Your task to perform on an android device: Search for a new grill on Home Depot Image 0: 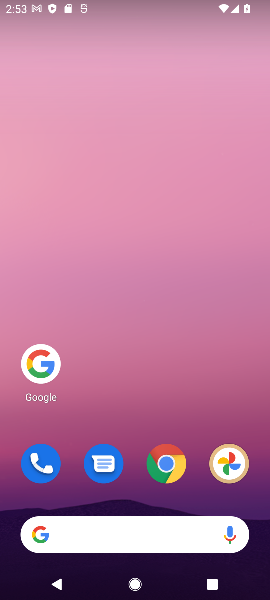
Step 0: click (29, 355)
Your task to perform on an android device: Search for a new grill on Home Depot Image 1: 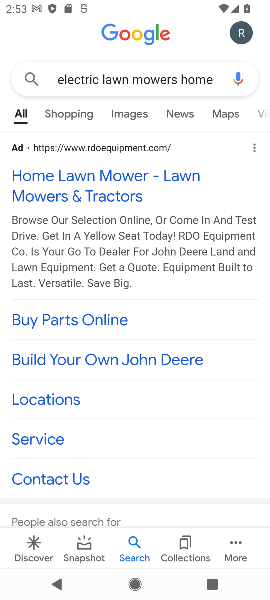
Step 1: click (159, 76)
Your task to perform on an android device: Search for a new grill on Home Depot Image 2: 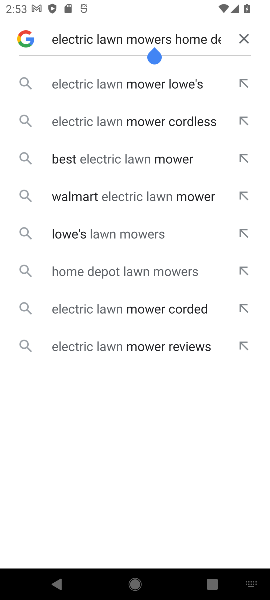
Step 2: click (249, 38)
Your task to perform on an android device: Search for a new grill on Home Depot Image 3: 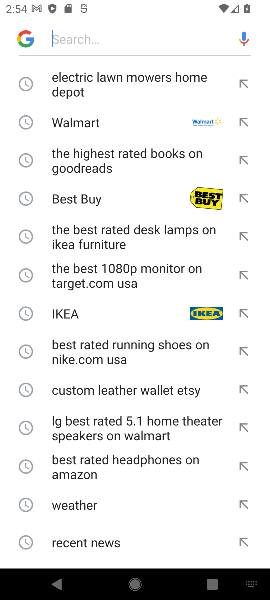
Step 3: click (151, 34)
Your task to perform on an android device: Search for a new grill on Home Depot Image 4: 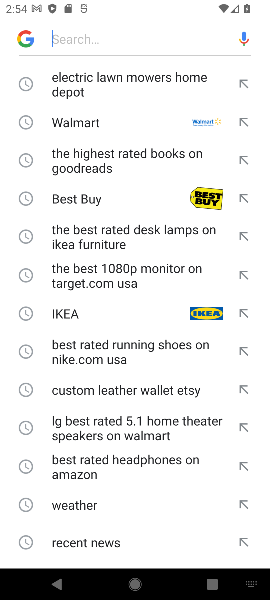
Step 4: type "new grill on Home Depot "
Your task to perform on an android device: Search for a new grill on Home Depot Image 5: 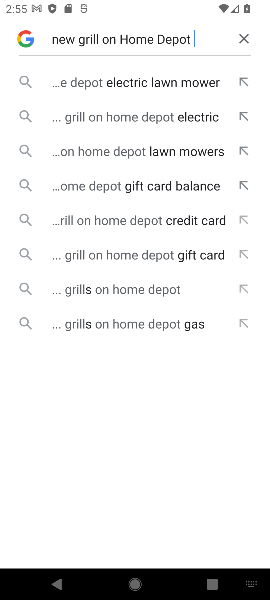
Step 5: click (116, 75)
Your task to perform on an android device: Search for a new grill on Home Depot Image 6: 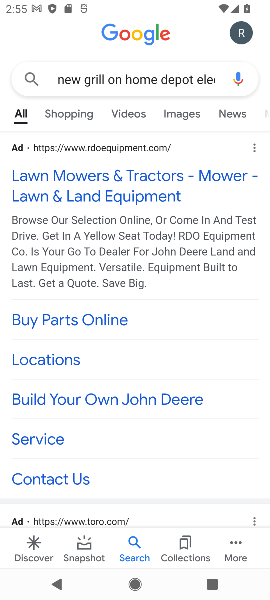
Step 6: drag from (138, 468) to (174, 266)
Your task to perform on an android device: Search for a new grill on Home Depot Image 7: 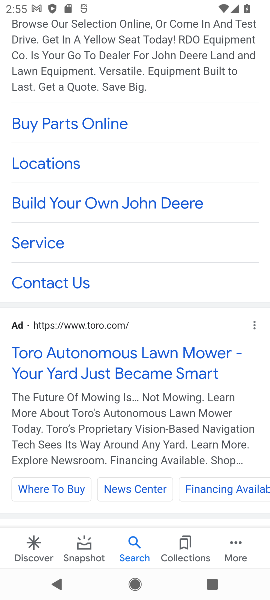
Step 7: drag from (132, 196) to (174, 464)
Your task to perform on an android device: Search for a new grill on Home Depot Image 8: 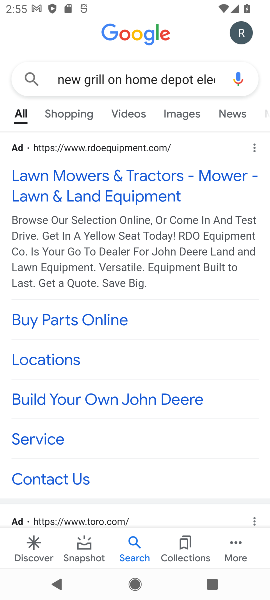
Step 8: drag from (128, 488) to (181, 178)
Your task to perform on an android device: Search for a new grill on Home Depot Image 9: 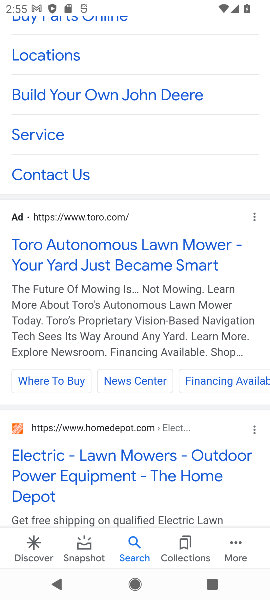
Step 9: click (99, 474)
Your task to perform on an android device: Search for a new grill on Home Depot Image 10: 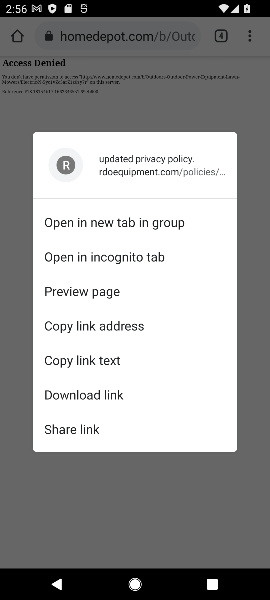
Step 10: click (76, 494)
Your task to perform on an android device: Search for a new grill on Home Depot Image 11: 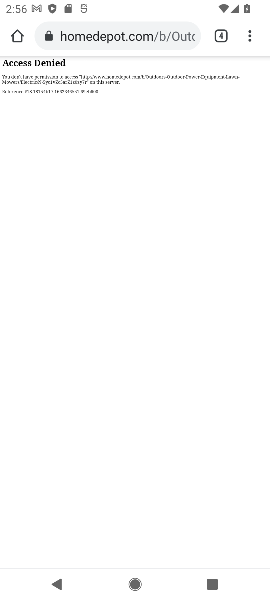
Step 11: task complete